Your task to perform on an android device: open app "LinkedIn" (install if not already installed), go to login, and select forgot password Image 0: 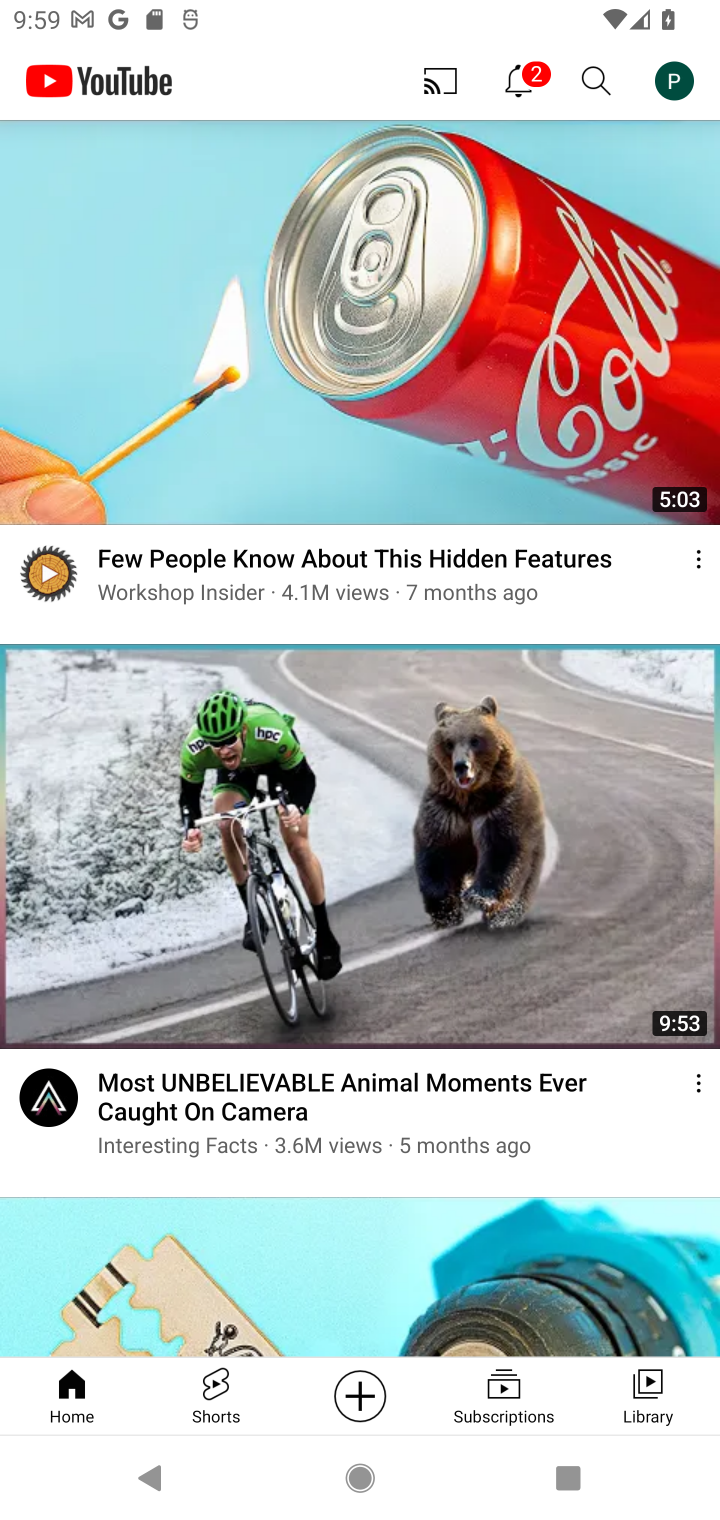
Step 0: press home button
Your task to perform on an android device: open app "LinkedIn" (install if not already installed), go to login, and select forgot password Image 1: 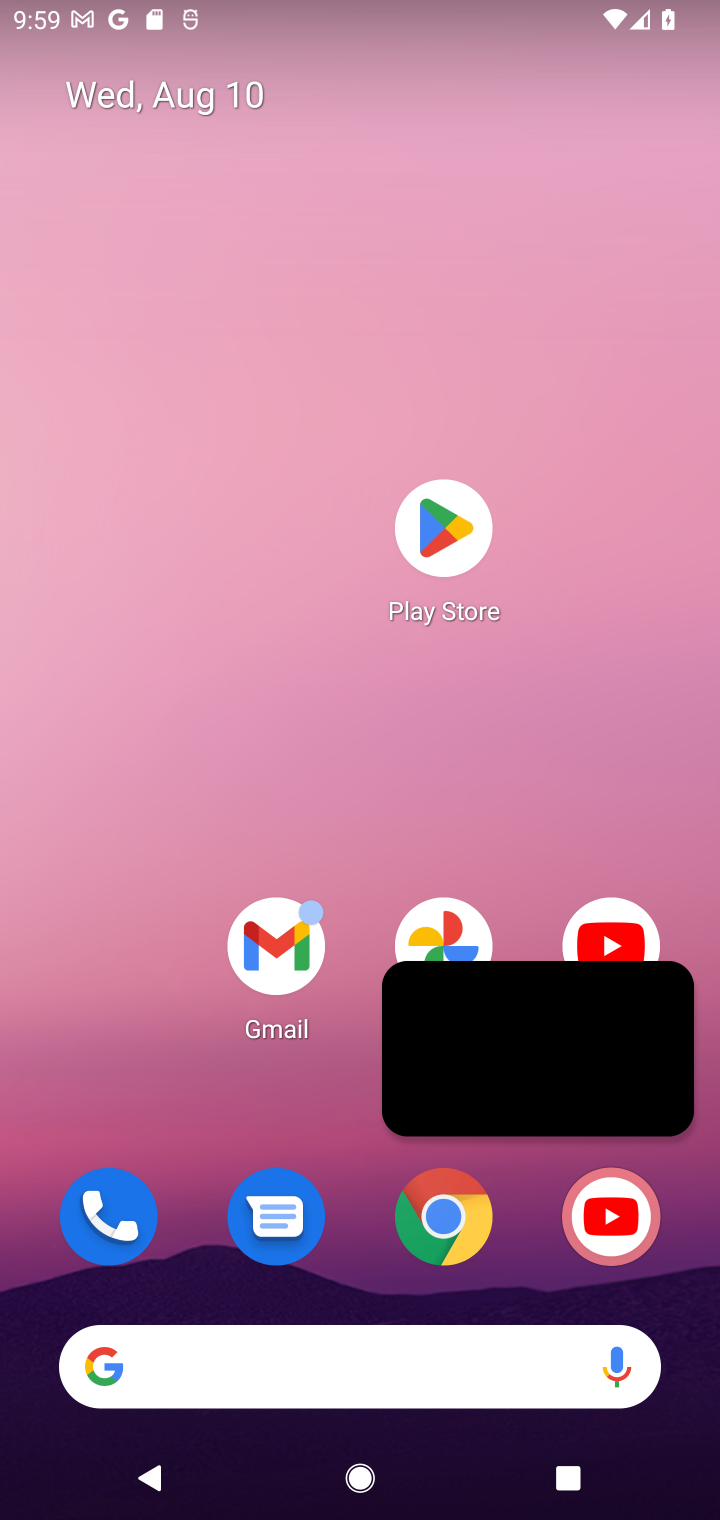
Step 1: click (609, 1033)
Your task to perform on an android device: open app "LinkedIn" (install if not already installed), go to login, and select forgot password Image 2: 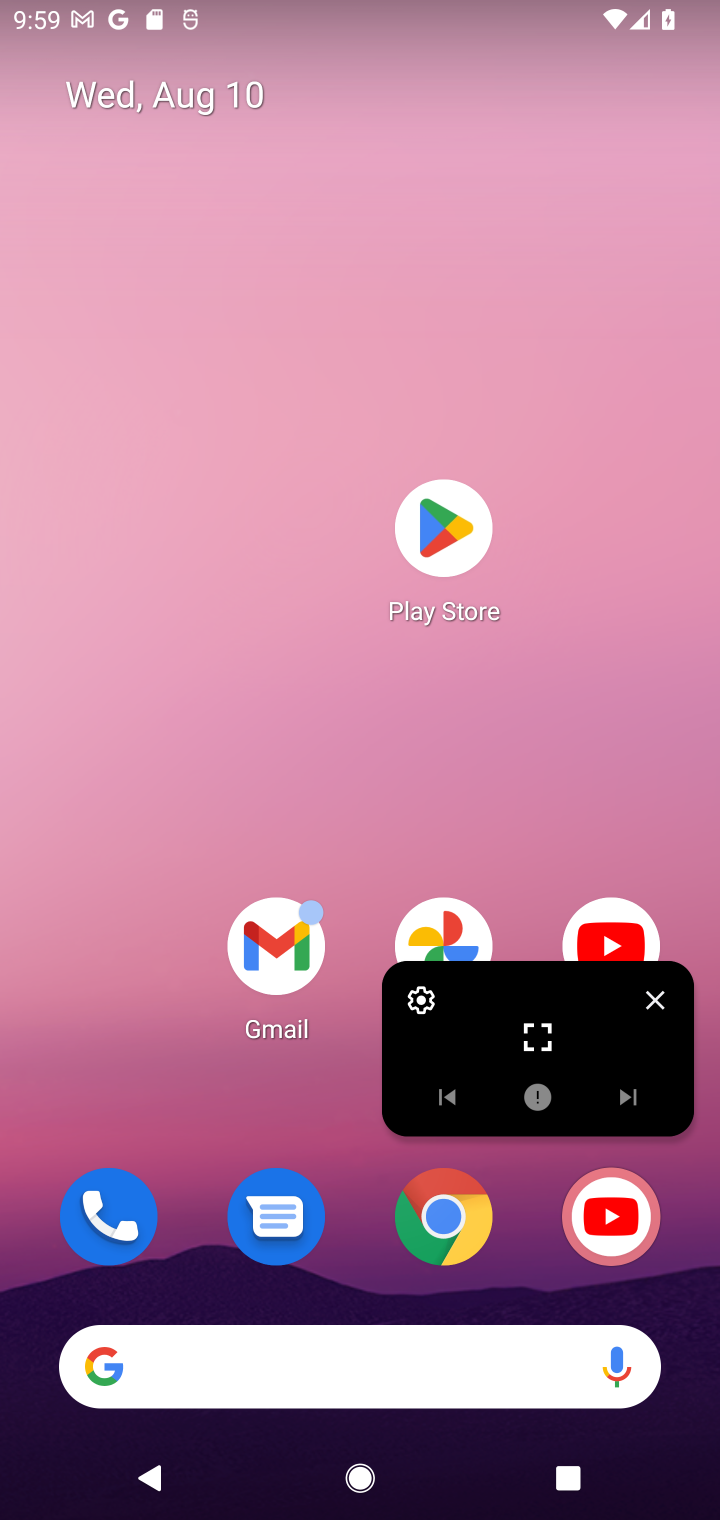
Step 2: click (654, 1008)
Your task to perform on an android device: open app "LinkedIn" (install if not already installed), go to login, and select forgot password Image 3: 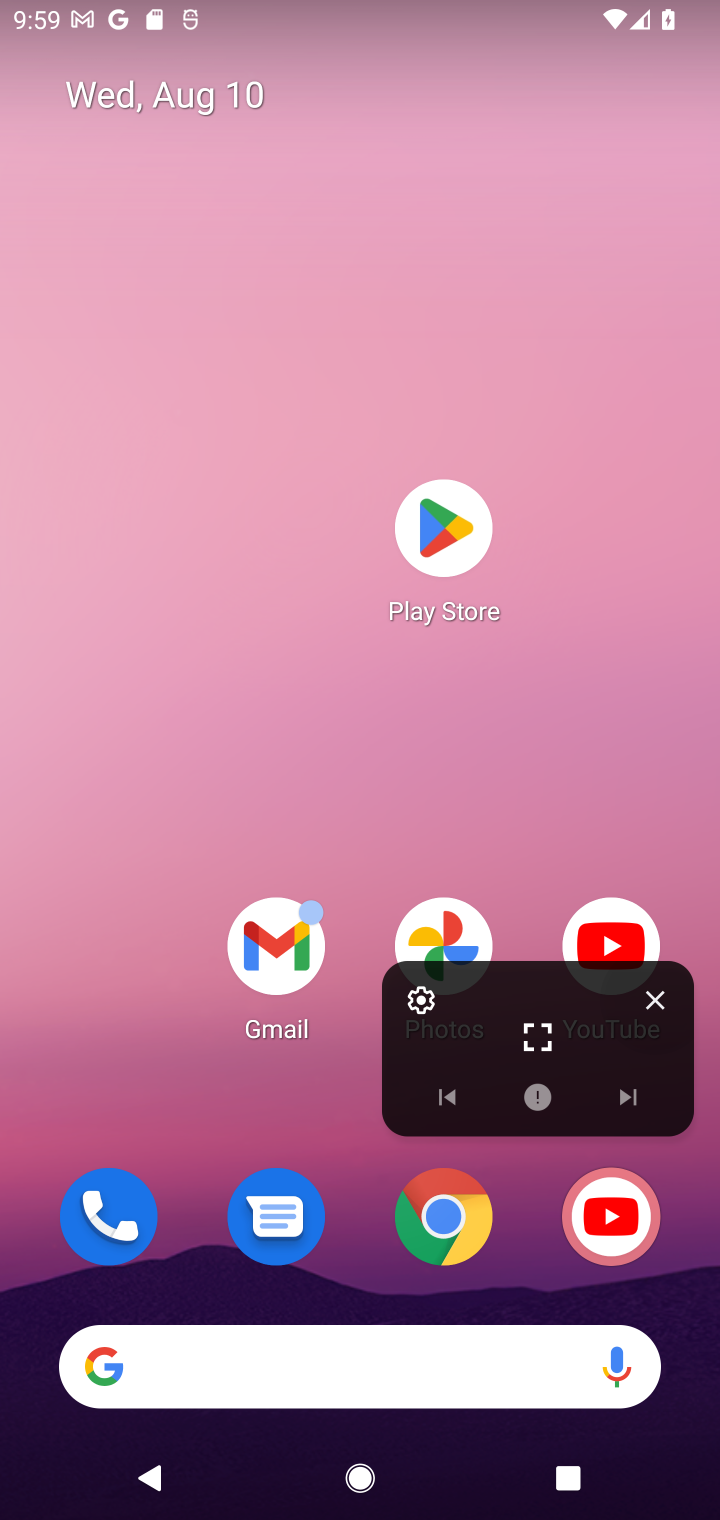
Step 3: click (655, 1001)
Your task to perform on an android device: open app "LinkedIn" (install if not already installed), go to login, and select forgot password Image 4: 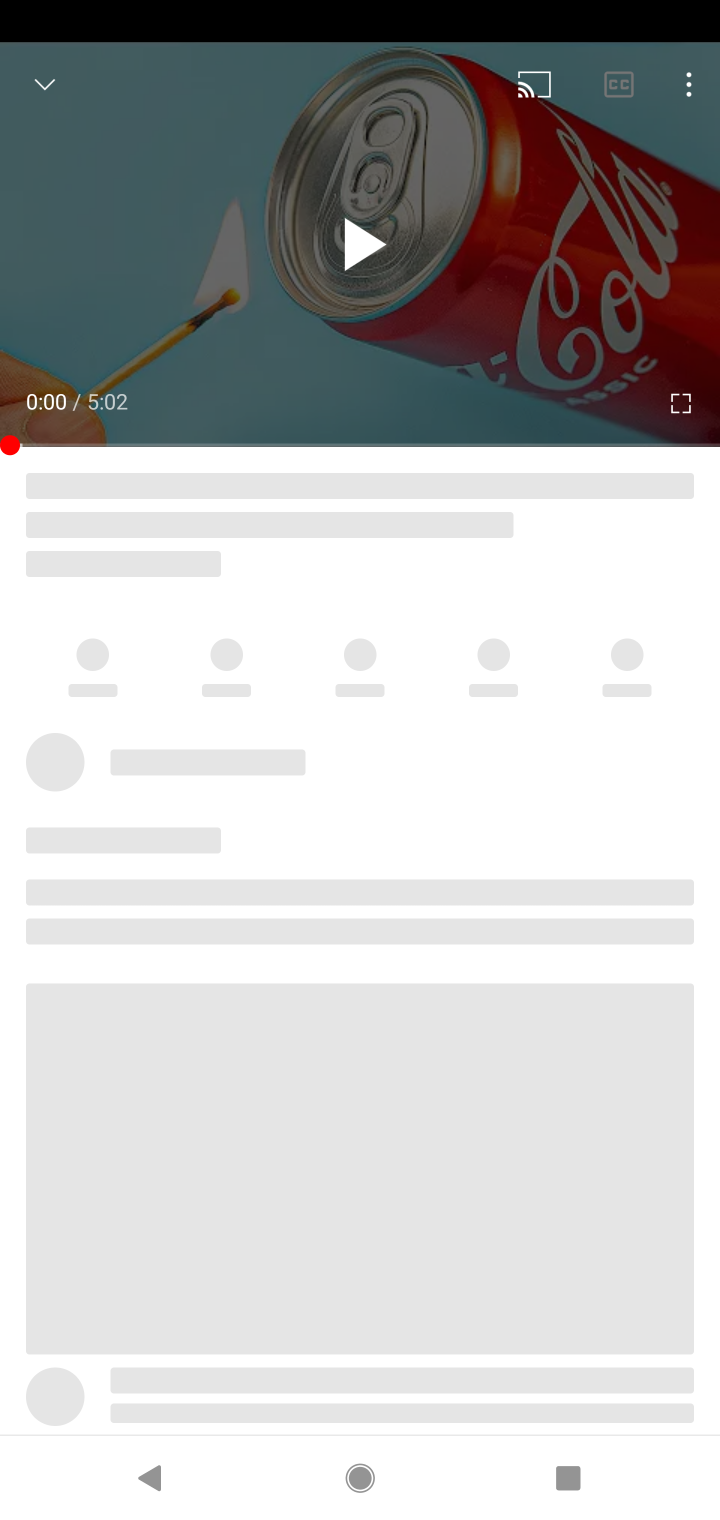
Step 4: press home button
Your task to perform on an android device: open app "LinkedIn" (install if not already installed), go to login, and select forgot password Image 5: 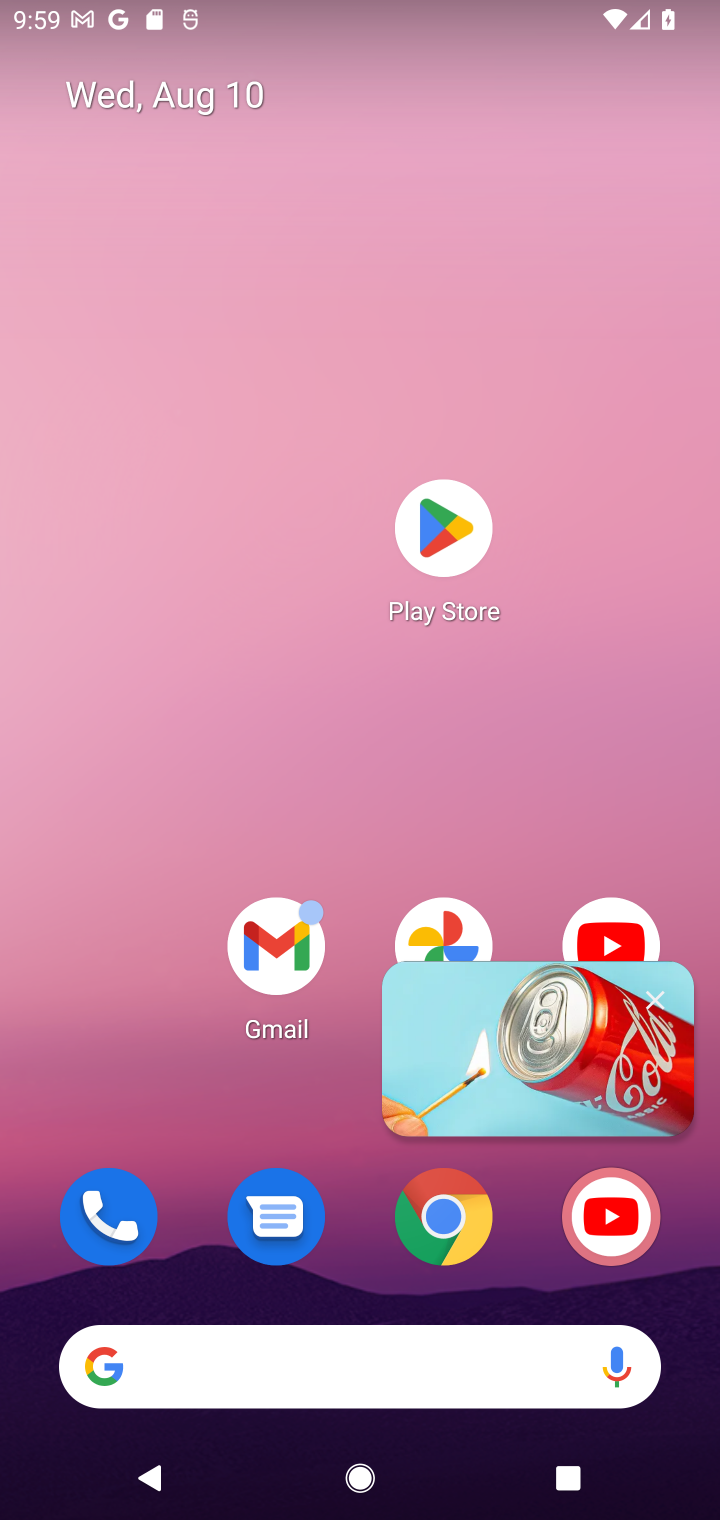
Step 5: click (656, 992)
Your task to perform on an android device: open app "LinkedIn" (install if not already installed), go to login, and select forgot password Image 6: 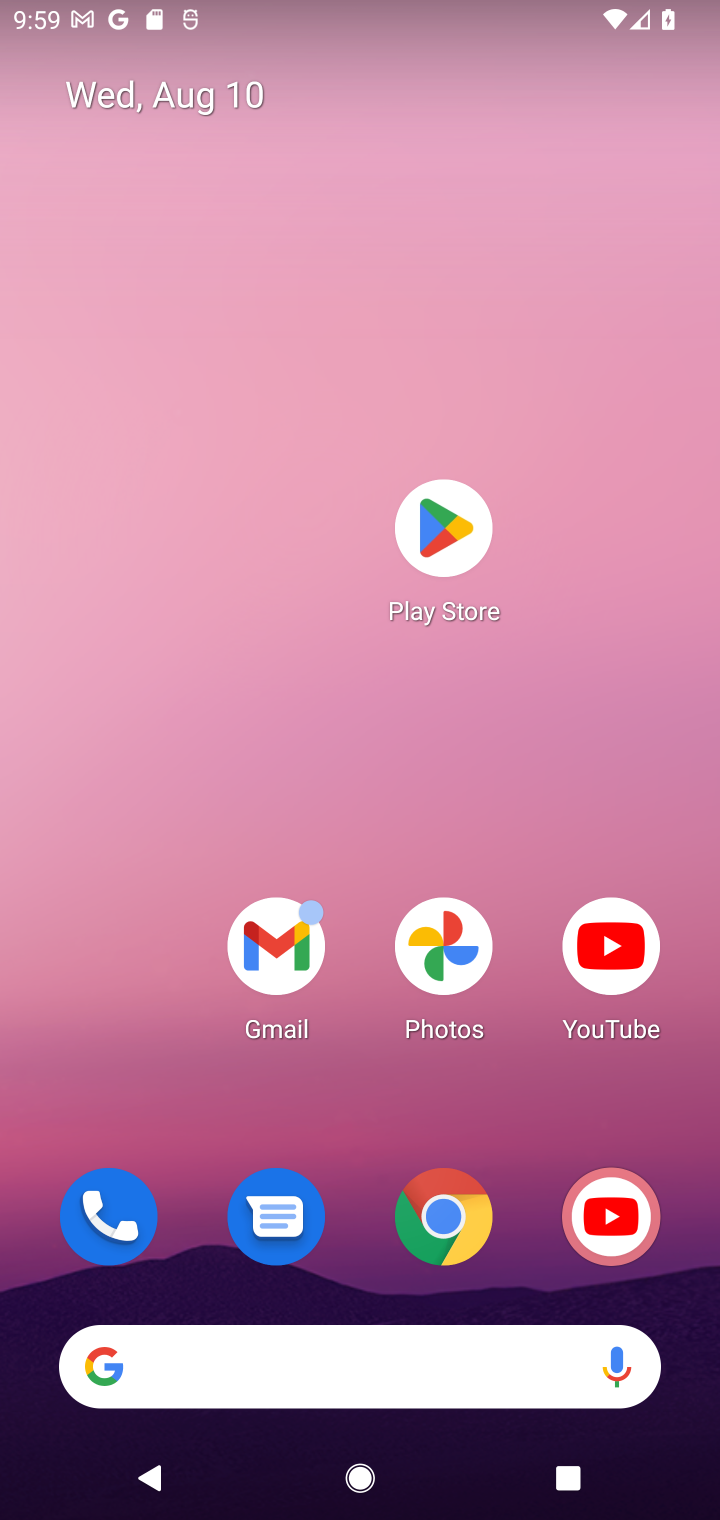
Step 6: click (430, 529)
Your task to perform on an android device: open app "LinkedIn" (install if not already installed), go to login, and select forgot password Image 7: 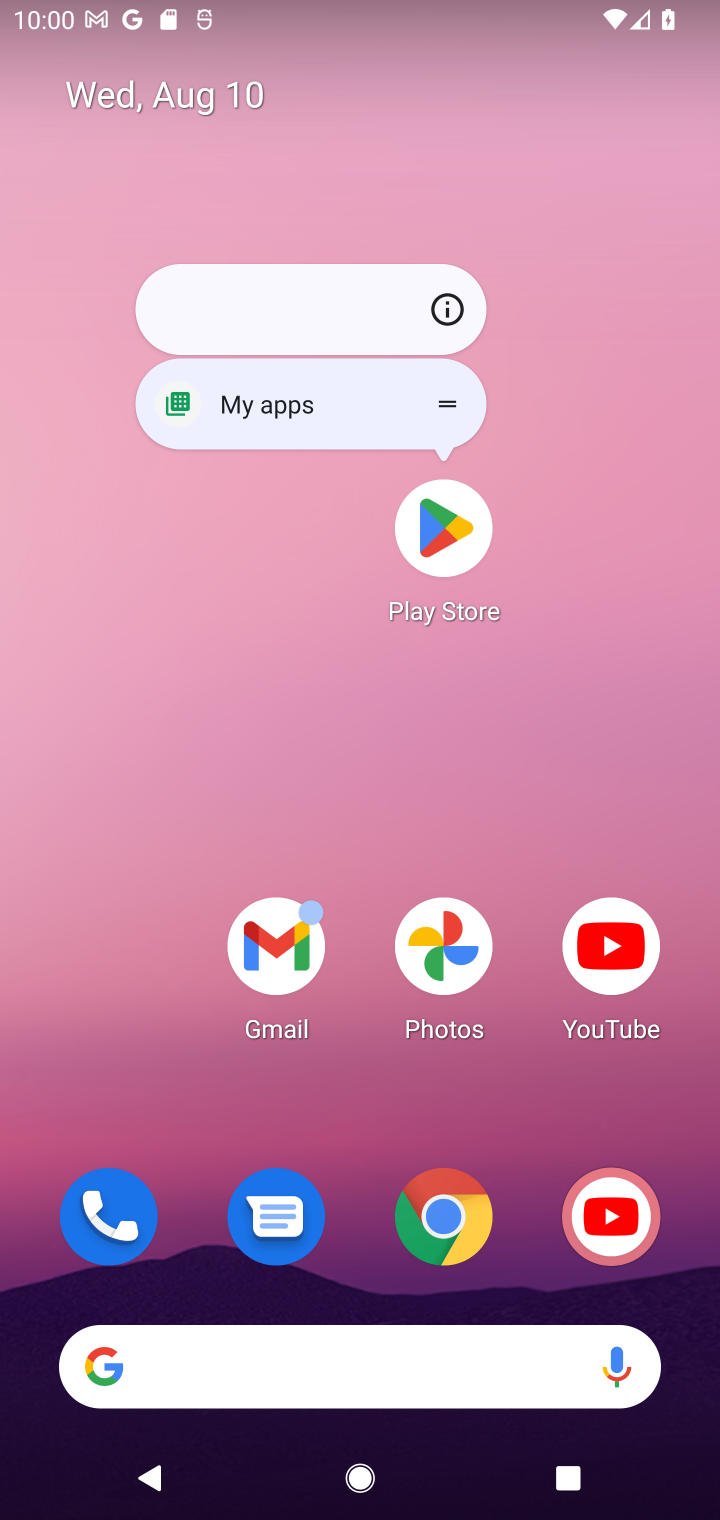
Step 7: click (430, 533)
Your task to perform on an android device: open app "LinkedIn" (install if not already installed), go to login, and select forgot password Image 8: 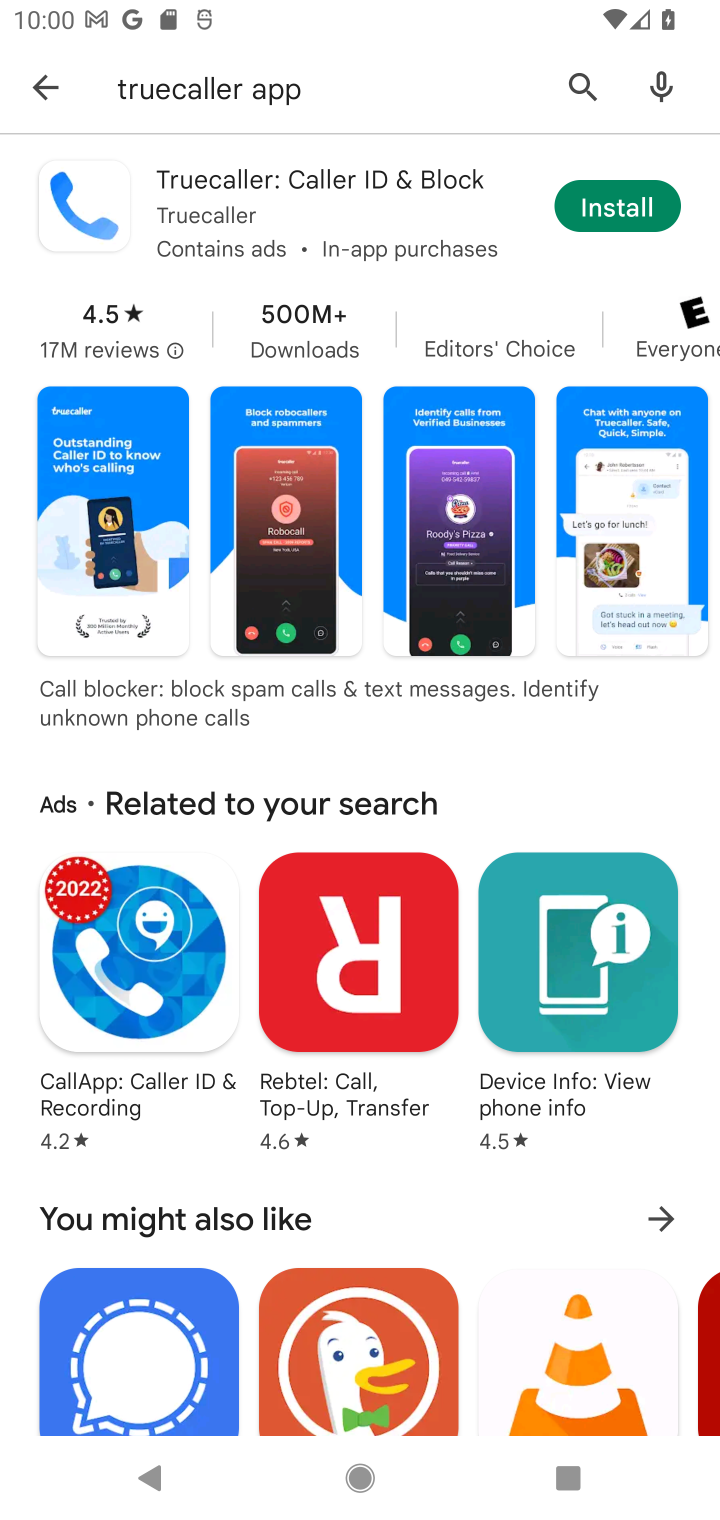
Step 8: click (582, 67)
Your task to perform on an android device: open app "LinkedIn" (install if not already installed), go to login, and select forgot password Image 9: 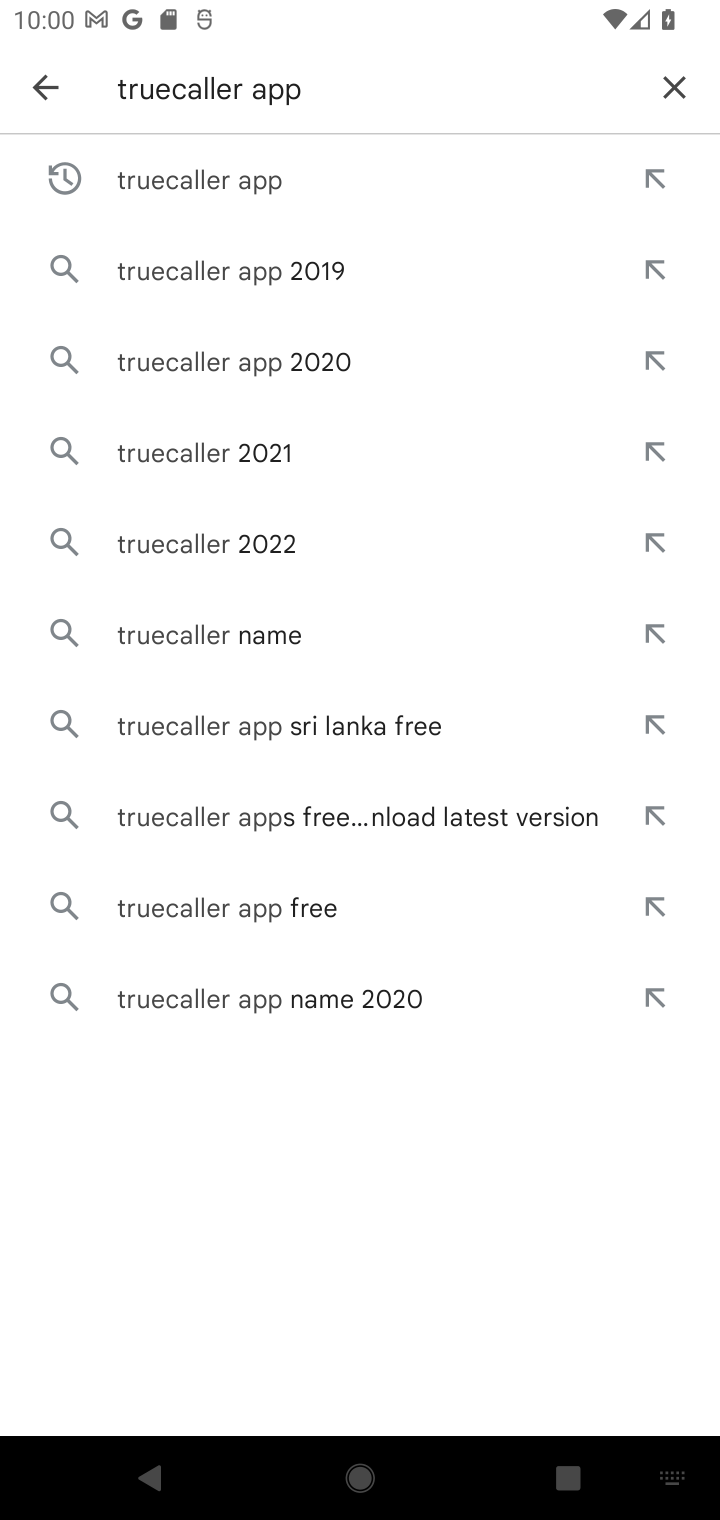
Step 9: click (674, 75)
Your task to perform on an android device: open app "LinkedIn" (install if not already installed), go to login, and select forgot password Image 10: 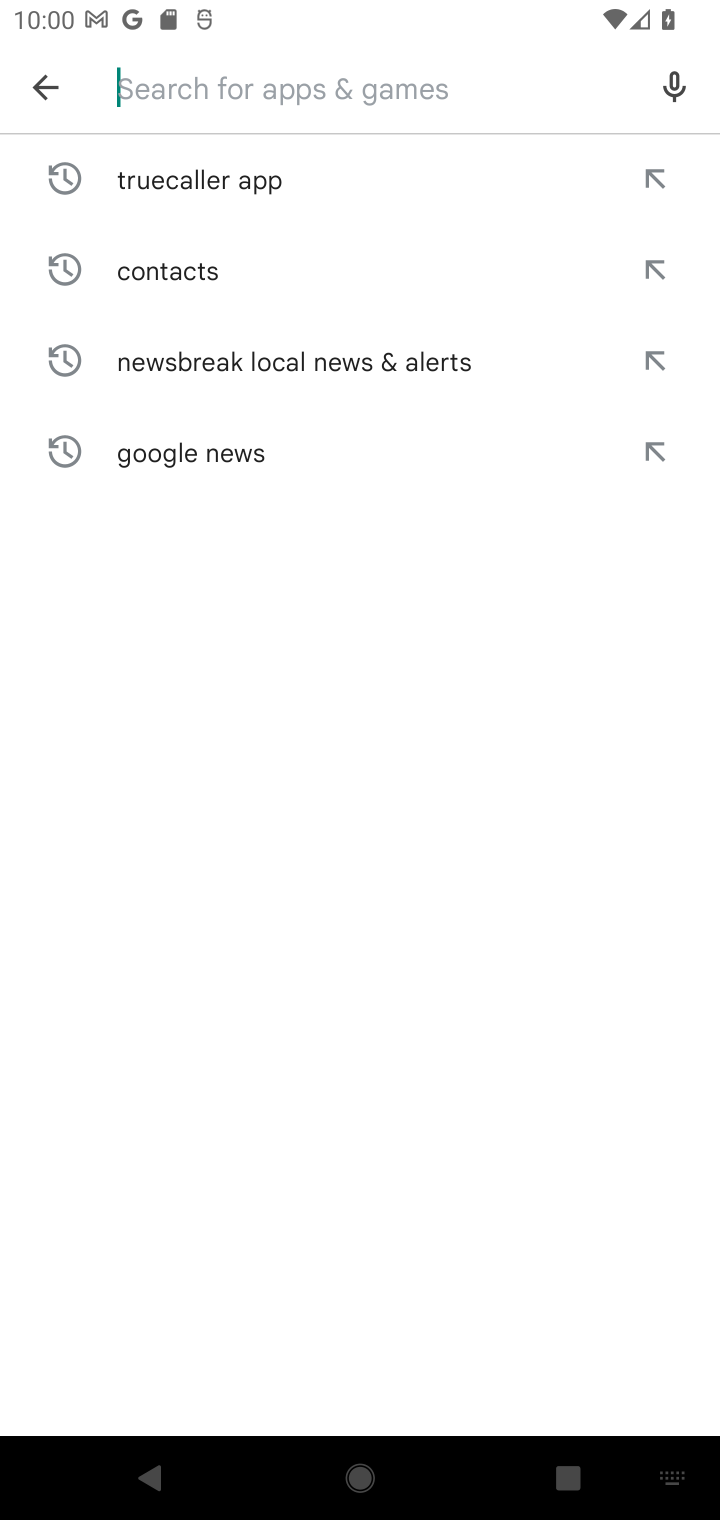
Step 10: type "LinkedIn"
Your task to perform on an android device: open app "LinkedIn" (install if not already installed), go to login, and select forgot password Image 11: 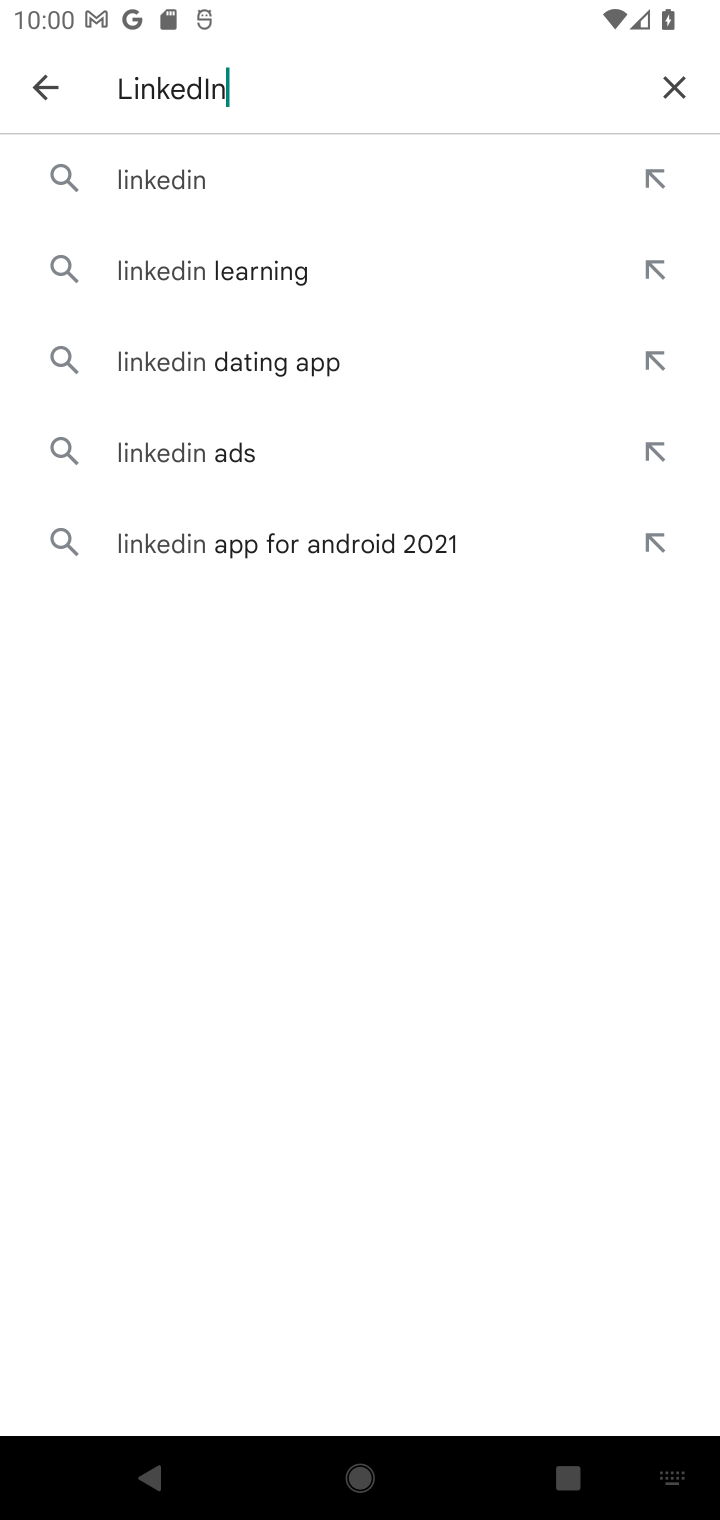
Step 11: click (124, 193)
Your task to perform on an android device: open app "LinkedIn" (install if not already installed), go to login, and select forgot password Image 12: 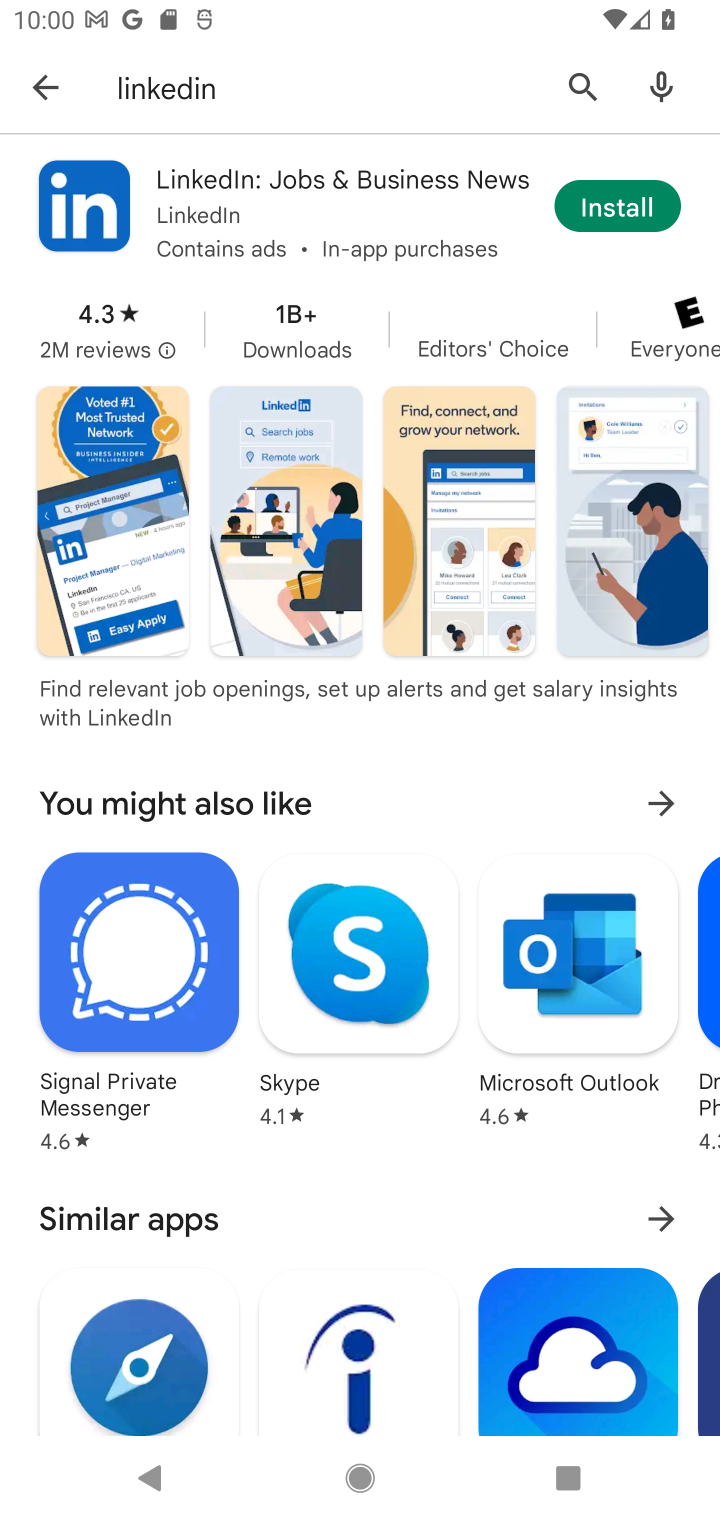
Step 12: click (637, 203)
Your task to perform on an android device: open app "LinkedIn" (install if not already installed), go to login, and select forgot password Image 13: 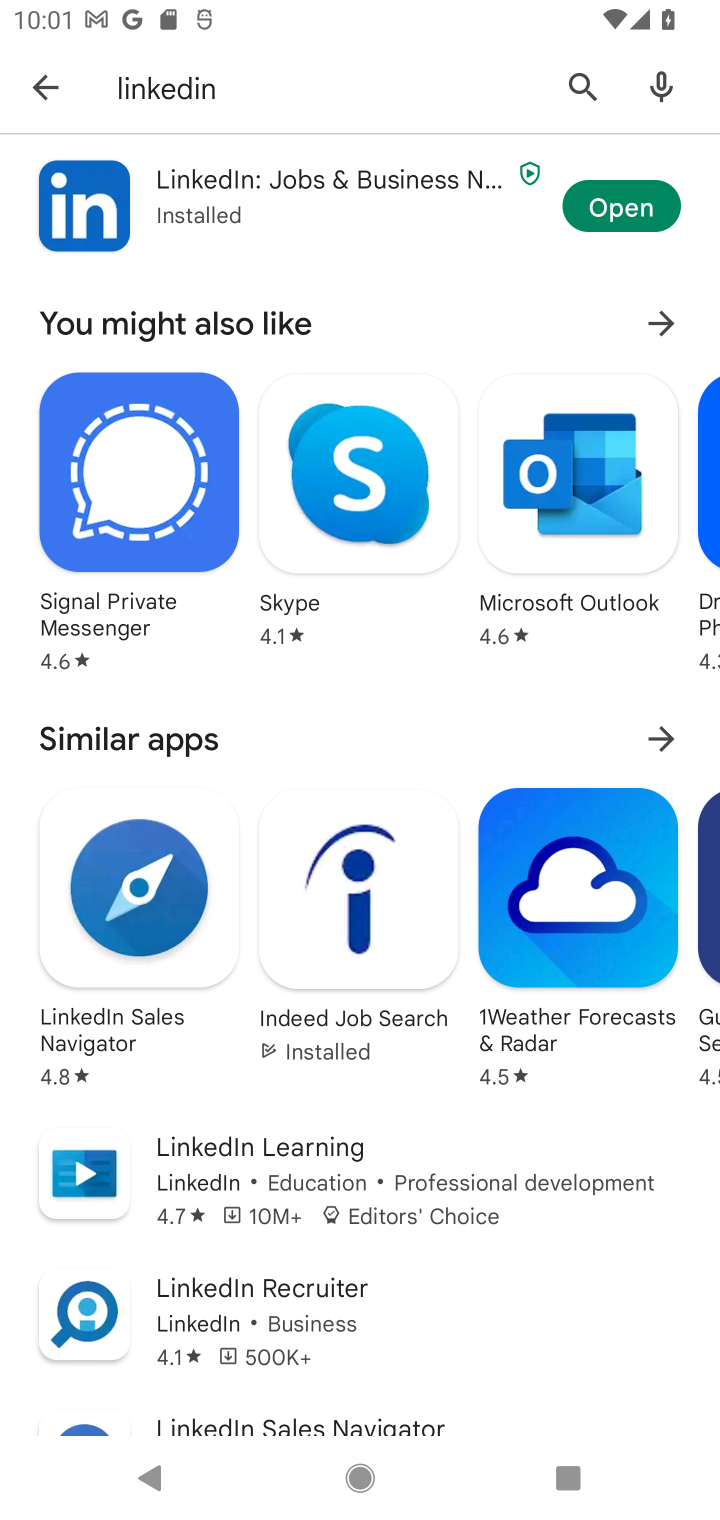
Step 13: click (611, 210)
Your task to perform on an android device: open app "LinkedIn" (install if not already installed), go to login, and select forgot password Image 14: 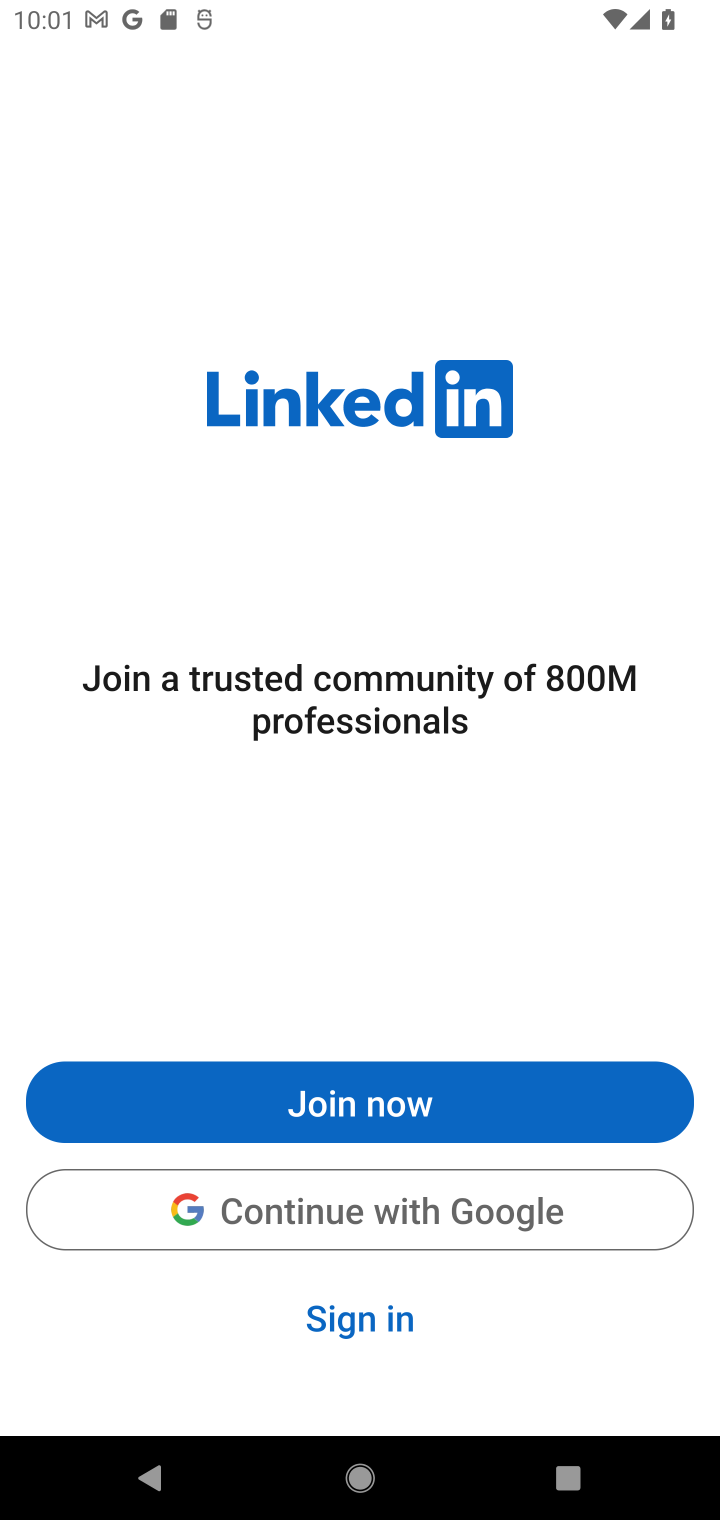
Step 14: click (378, 1311)
Your task to perform on an android device: open app "LinkedIn" (install if not already installed), go to login, and select forgot password Image 15: 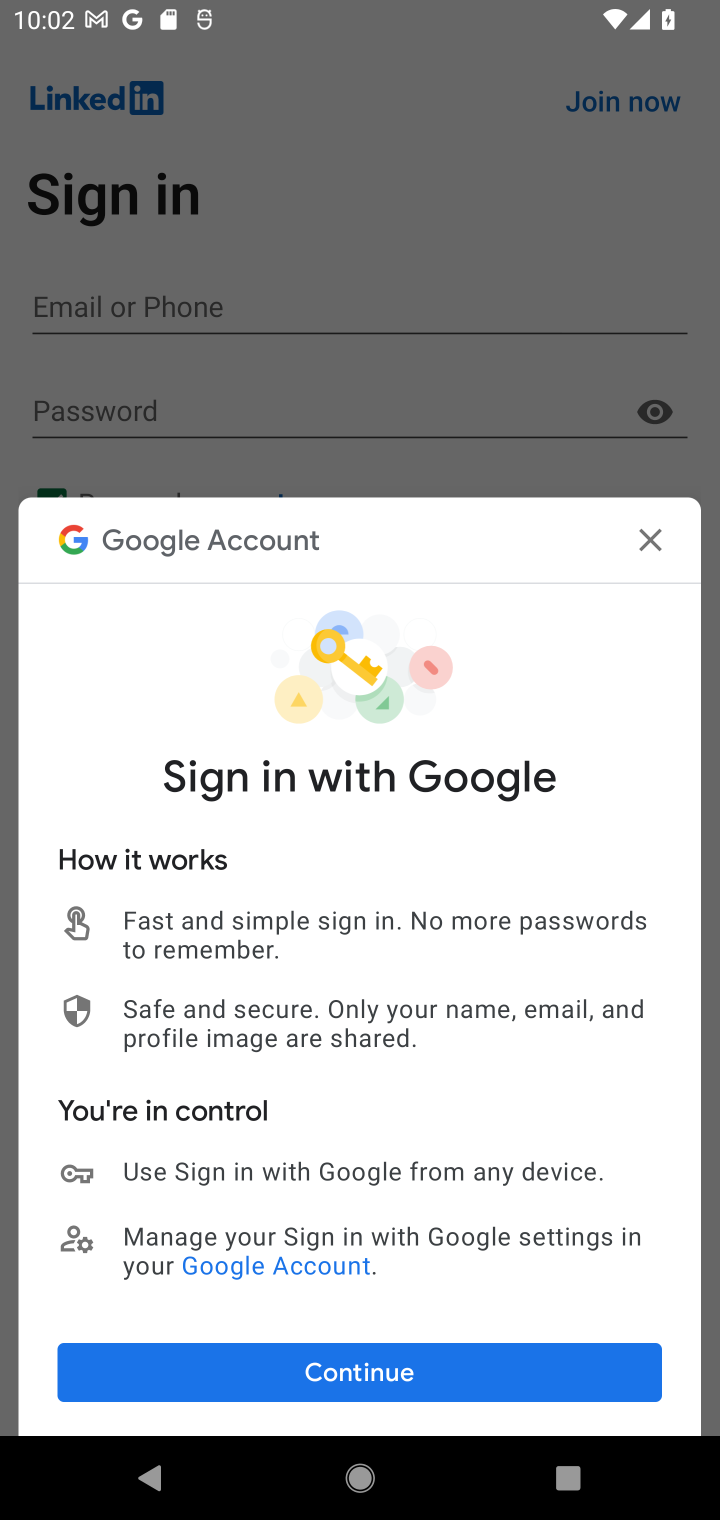
Step 15: click (647, 526)
Your task to perform on an android device: open app "LinkedIn" (install if not already installed), go to login, and select forgot password Image 16: 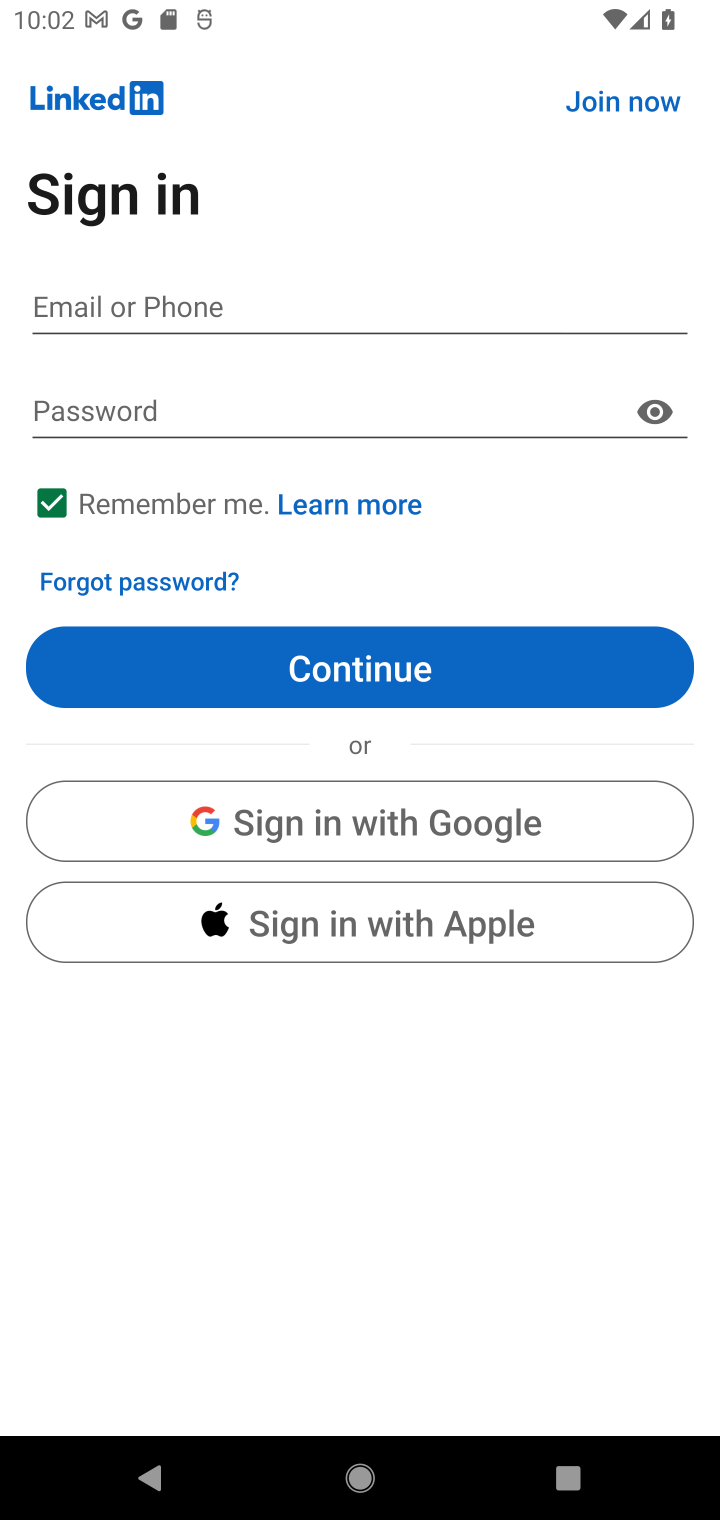
Step 16: click (114, 584)
Your task to perform on an android device: open app "LinkedIn" (install if not already installed), go to login, and select forgot password Image 17: 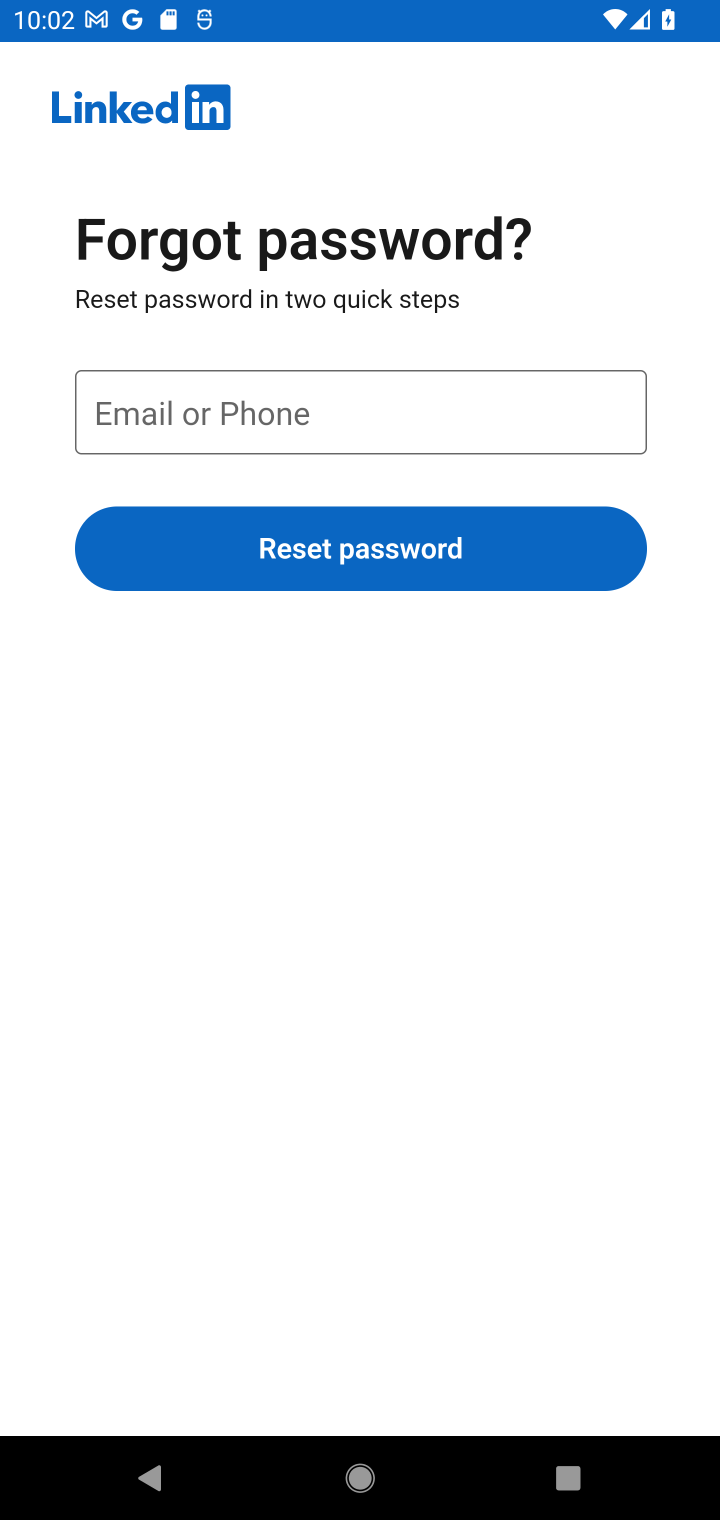
Step 17: task complete